Your task to perform on an android device: What's on my calendar tomorrow? Image 0: 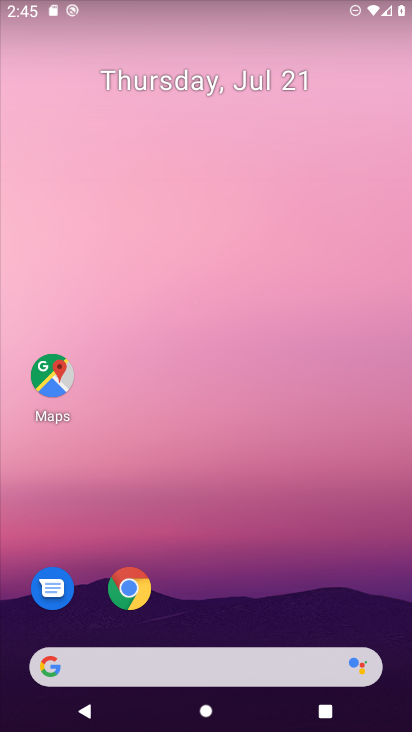
Step 0: drag from (254, 638) to (359, 2)
Your task to perform on an android device: What's on my calendar tomorrow? Image 1: 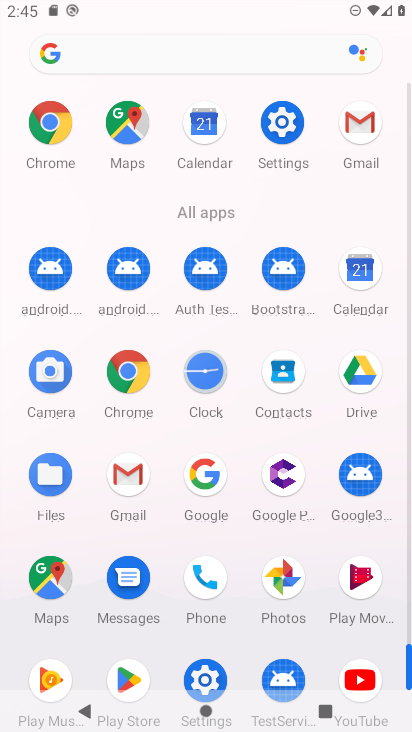
Step 1: click (190, 126)
Your task to perform on an android device: What's on my calendar tomorrow? Image 2: 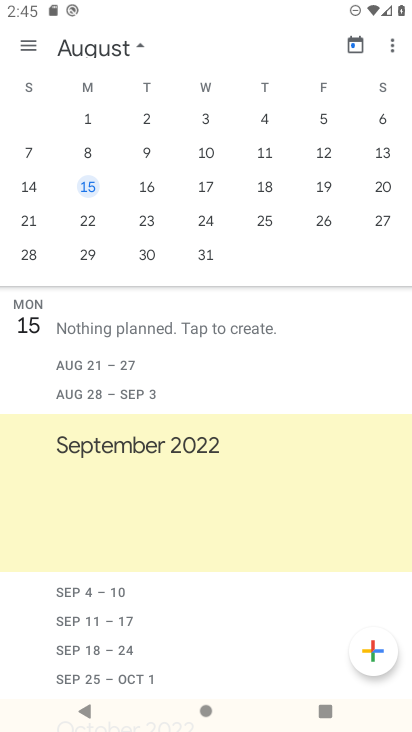
Step 2: drag from (85, 109) to (411, 180)
Your task to perform on an android device: What's on my calendar tomorrow? Image 3: 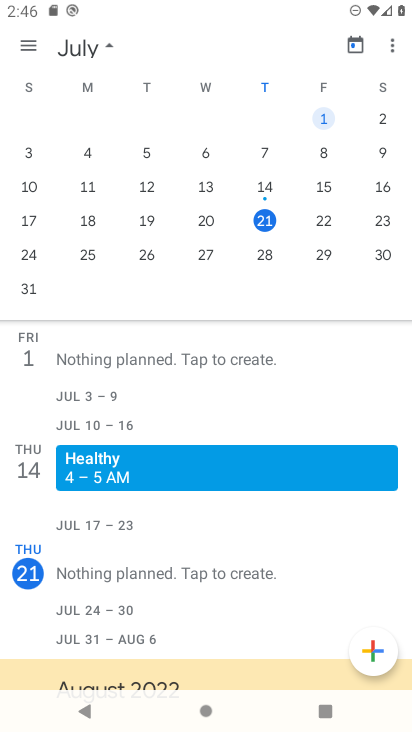
Step 3: click (326, 225)
Your task to perform on an android device: What's on my calendar tomorrow? Image 4: 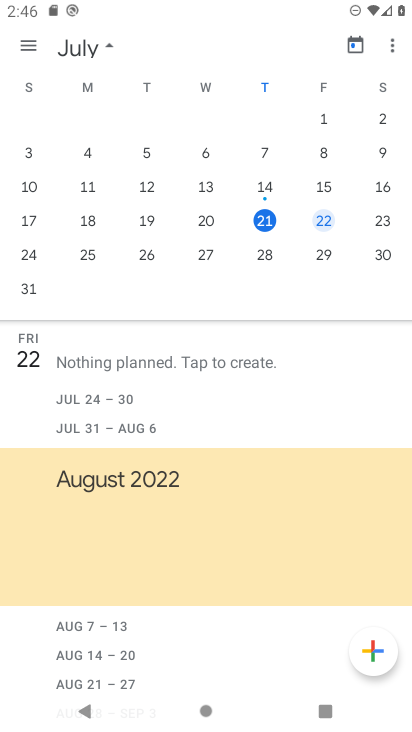
Step 4: task complete